Your task to perform on an android device: Go to Google Image 0: 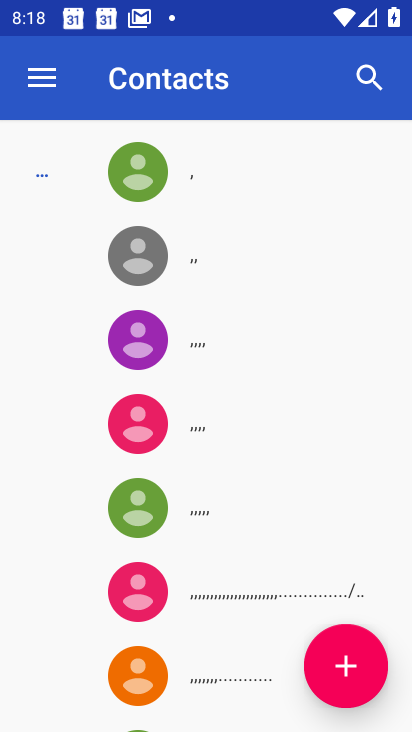
Step 0: press home button
Your task to perform on an android device: Go to Google Image 1: 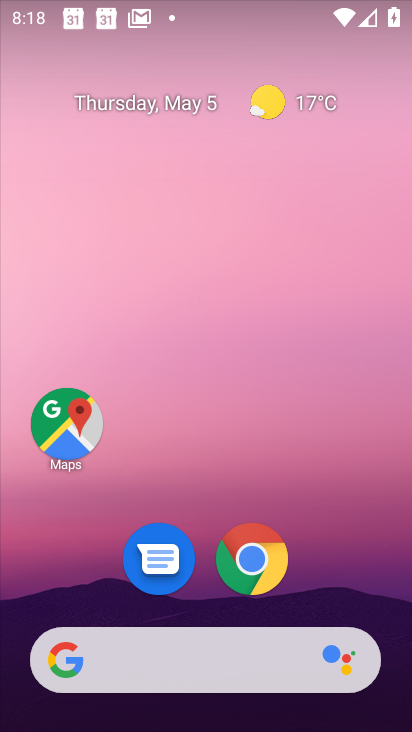
Step 1: drag from (334, 584) to (292, 37)
Your task to perform on an android device: Go to Google Image 2: 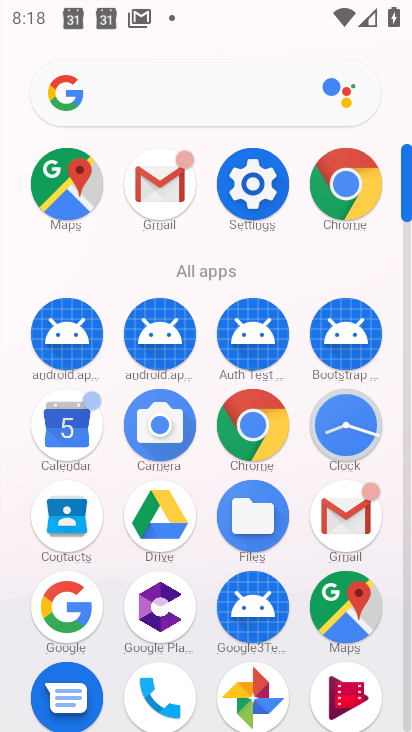
Step 2: click (73, 612)
Your task to perform on an android device: Go to Google Image 3: 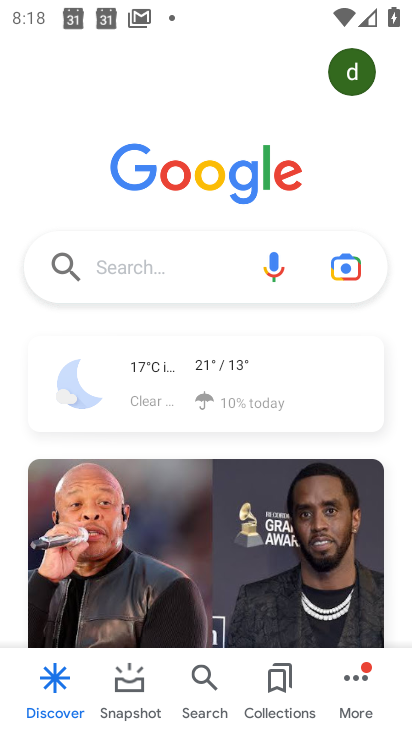
Step 3: task complete